Your task to perform on an android device: Go to Amazon Image 0: 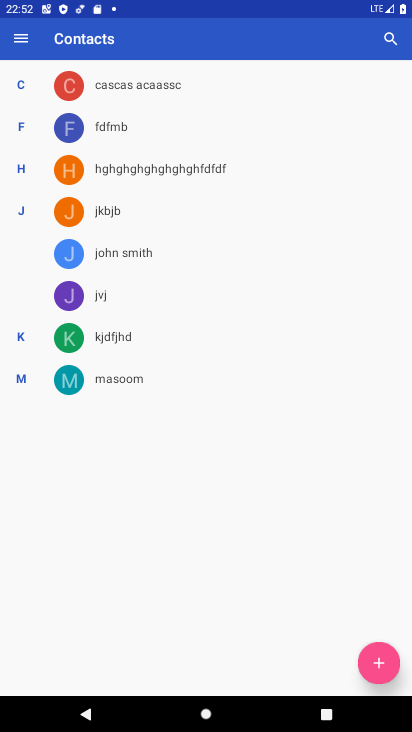
Step 0: press home button
Your task to perform on an android device: Go to Amazon Image 1: 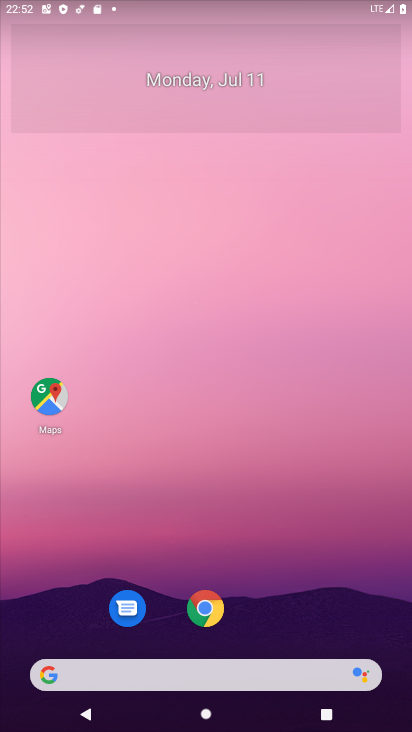
Step 1: click (131, 670)
Your task to perform on an android device: Go to Amazon Image 2: 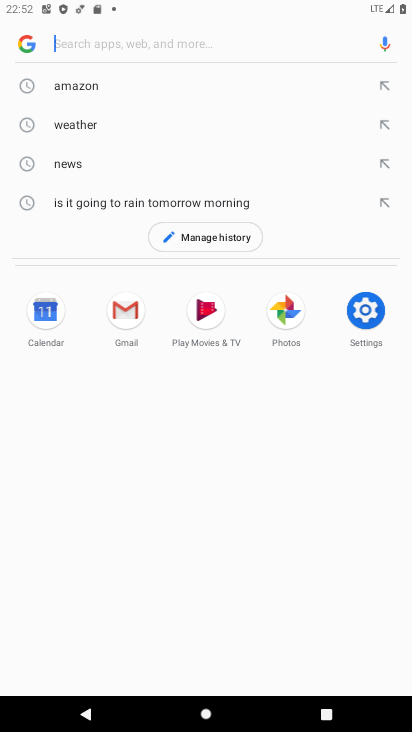
Step 2: click (92, 89)
Your task to perform on an android device: Go to Amazon Image 3: 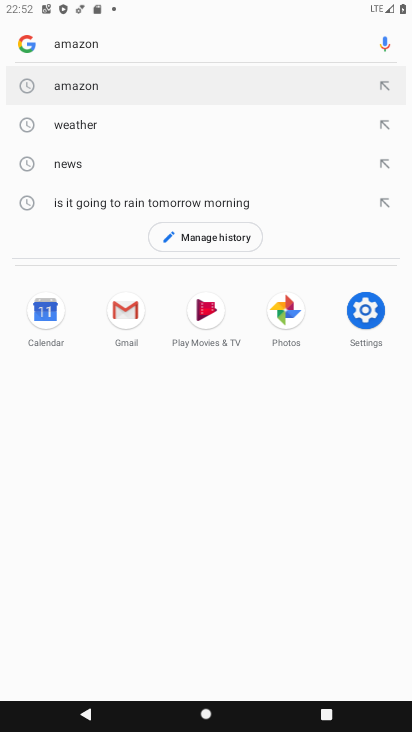
Step 3: click (92, 88)
Your task to perform on an android device: Go to Amazon Image 4: 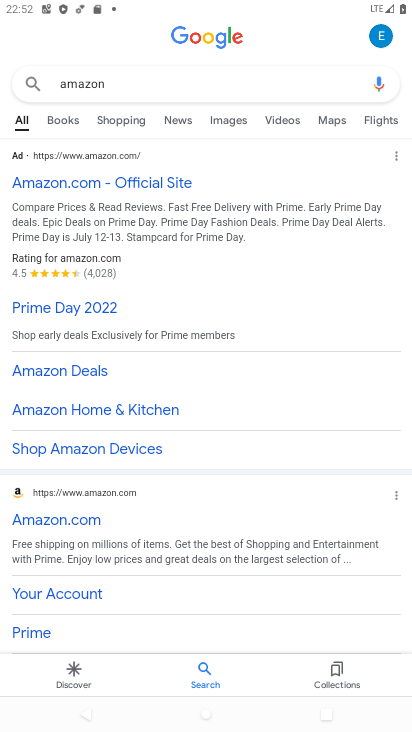
Step 4: task complete